Your task to perform on an android device: Go to Yahoo.com Image 0: 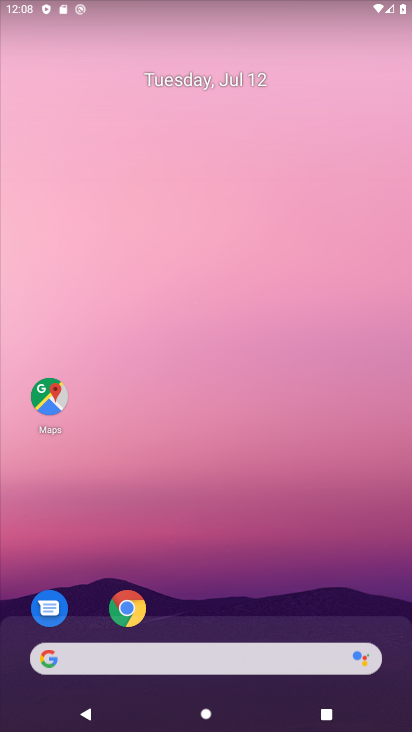
Step 0: drag from (273, 612) to (240, 334)
Your task to perform on an android device: Go to Yahoo.com Image 1: 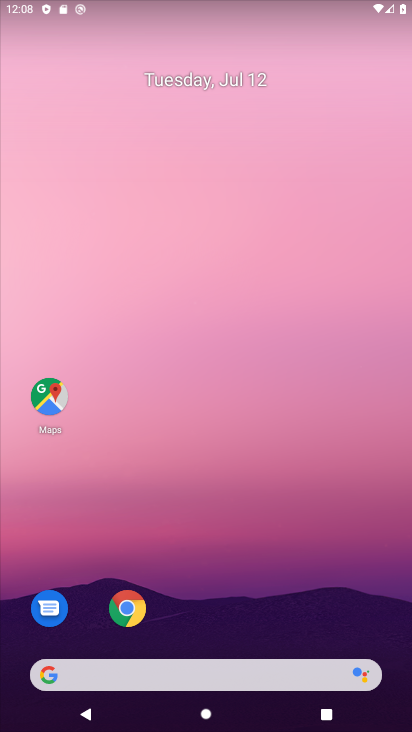
Step 1: drag from (245, 675) to (174, 315)
Your task to perform on an android device: Go to Yahoo.com Image 2: 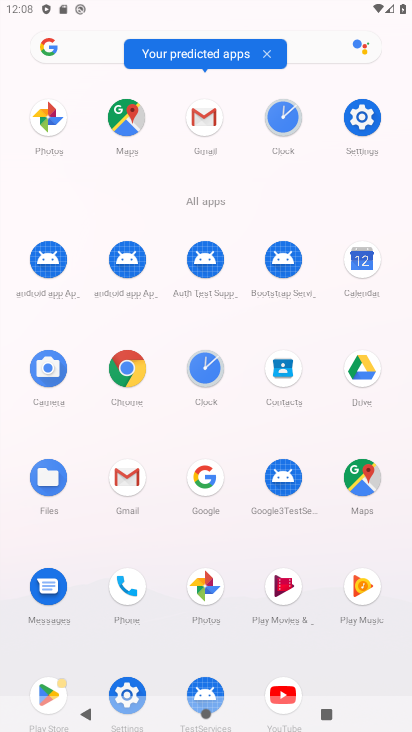
Step 2: click (124, 376)
Your task to perform on an android device: Go to Yahoo.com Image 3: 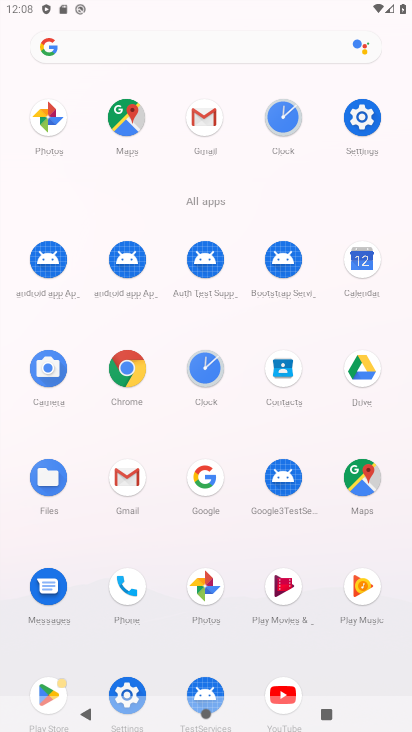
Step 3: click (124, 376)
Your task to perform on an android device: Go to Yahoo.com Image 4: 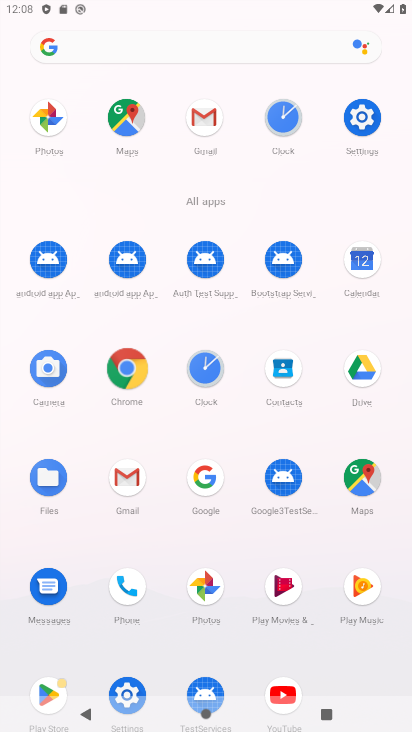
Step 4: click (125, 375)
Your task to perform on an android device: Go to Yahoo.com Image 5: 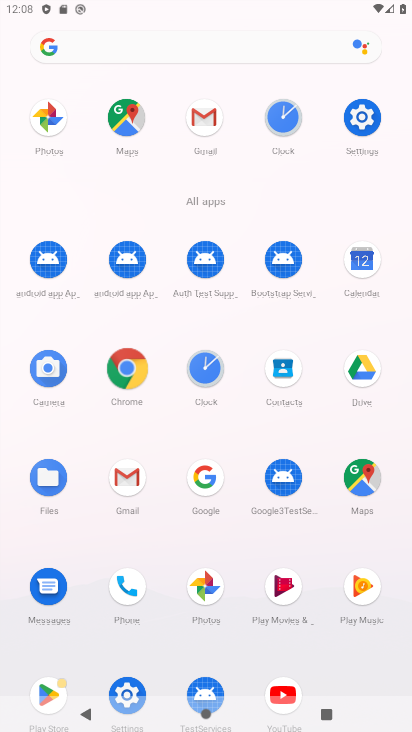
Step 5: click (126, 378)
Your task to perform on an android device: Go to Yahoo.com Image 6: 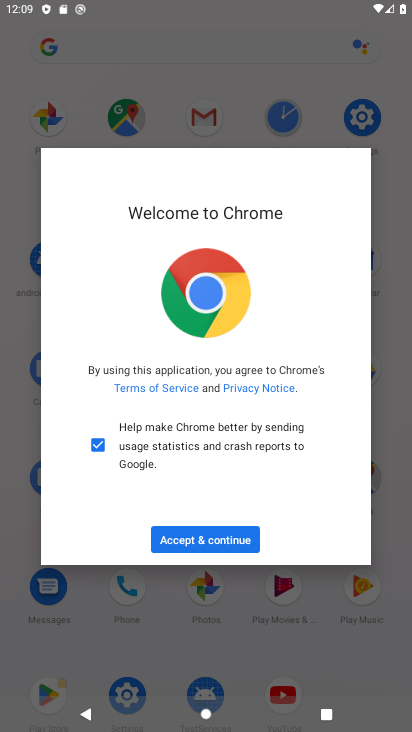
Step 6: click (217, 531)
Your task to perform on an android device: Go to Yahoo.com Image 7: 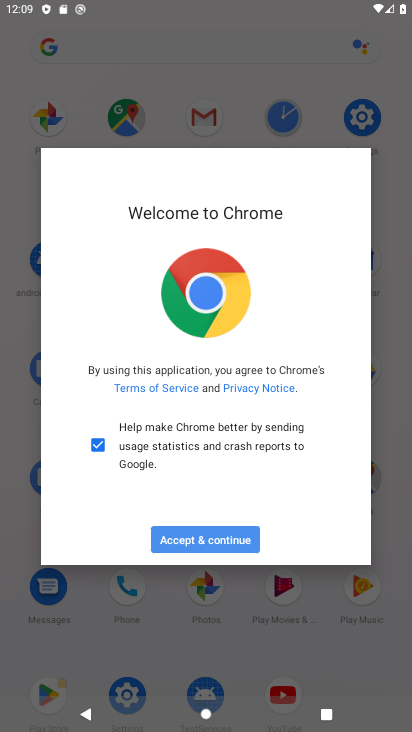
Step 7: click (228, 543)
Your task to perform on an android device: Go to Yahoo.com Image 8: 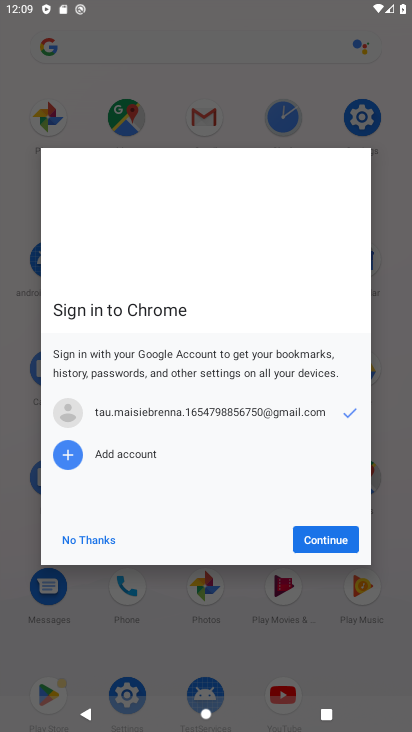
Step 8: click (217, 535)
Your task to perform on an android device: Go to Yahoo.com Image 9: 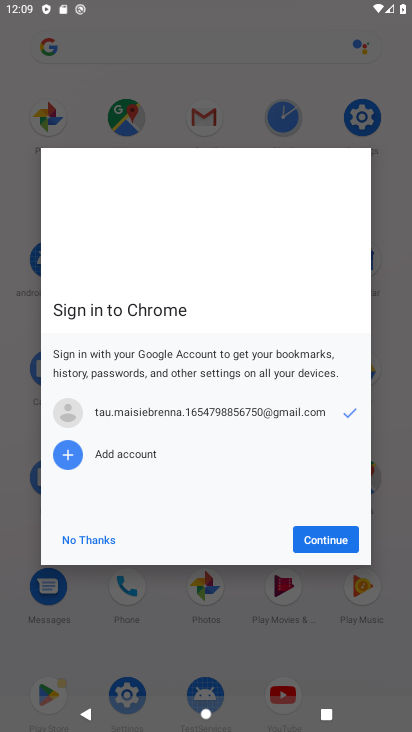
Step 9: click (220, 536)
Your task to perform on an android device: Go to Yahoo.com Image 10: 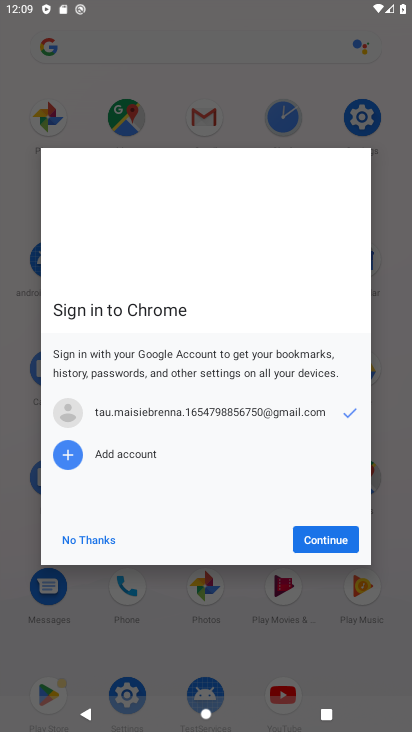
Step 10: click (333, 515)
Your task to perform on an android device: Go to Yahoo.com Image 11: 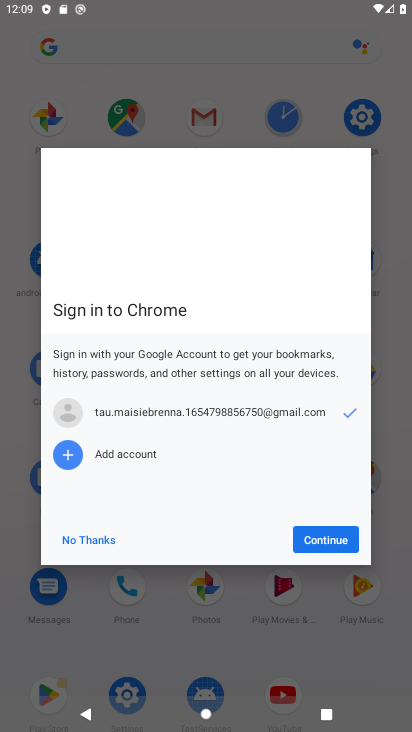
Step 11: click (331, 531)
Your task to perform on an android device: Go to Yahoo.com Image 12: 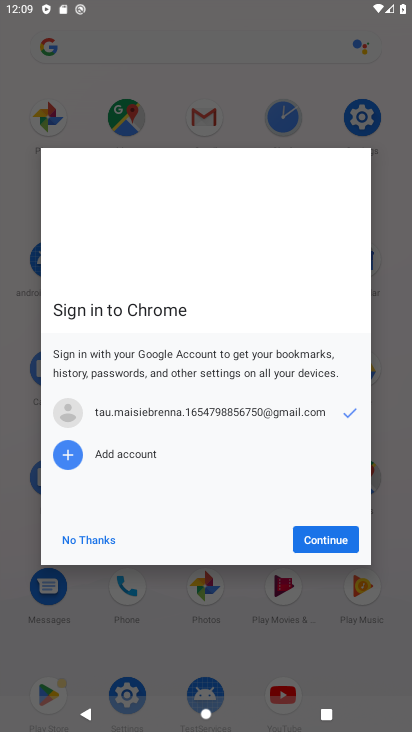
Step 12: click (319, 527)
Your task to perform on an android device: Go to Yahoo.com Image 13: 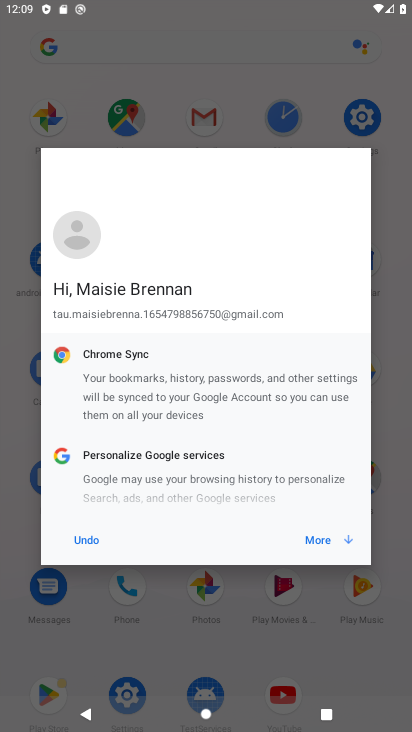
Step 13: click (324, 529)
Your task to perform on an android device: Go to Yahoo.com Image 14: 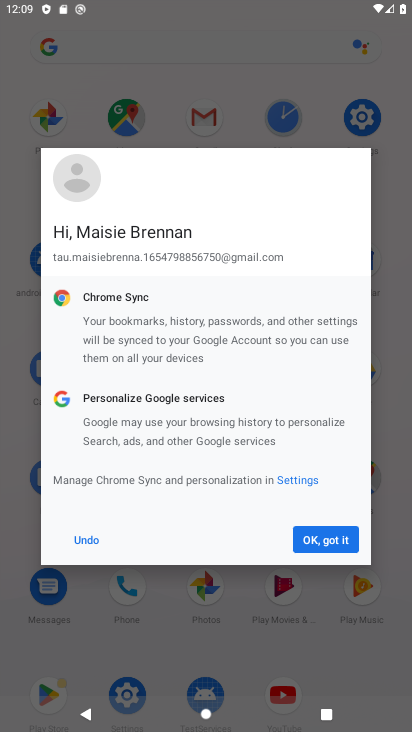
Step 14: click (325, 531)
Your task to perform on an android device: Go to Yahoo.com Image 15: 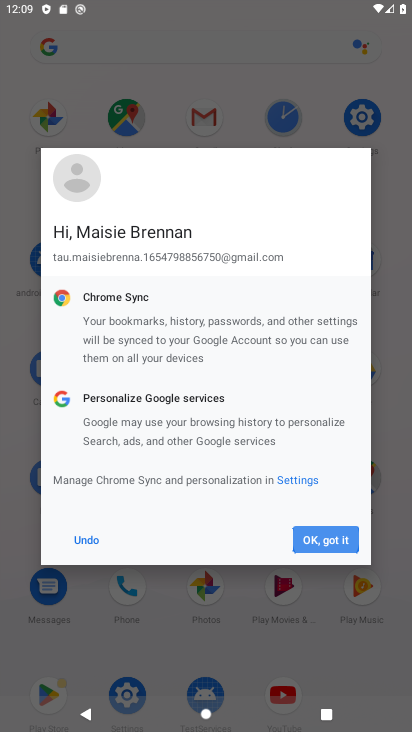
Step 15: click (332, 538)
Your task to perform on an android device: Go to Yahoo.com Image 16: 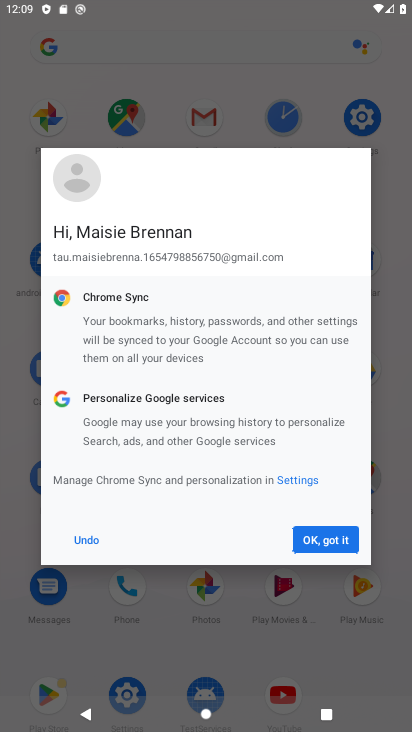
Step 16: click (329, 536)
Your task to perform on an android device: Go to Yahoo.com Image 17: 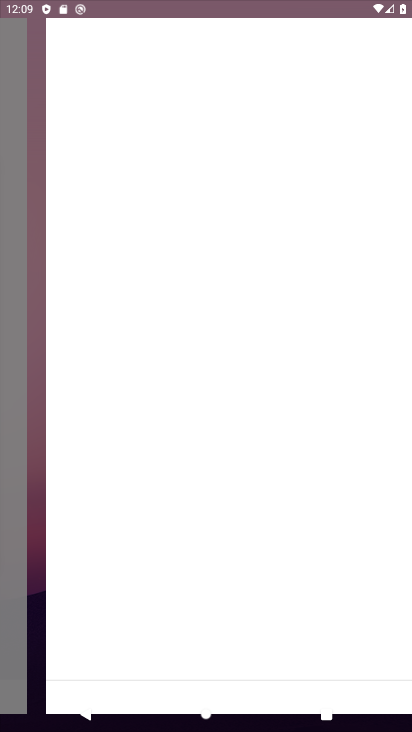
Step 17: click (329, 536)
Your task to perform on an android device: Go to Yahoo.com Image 18: 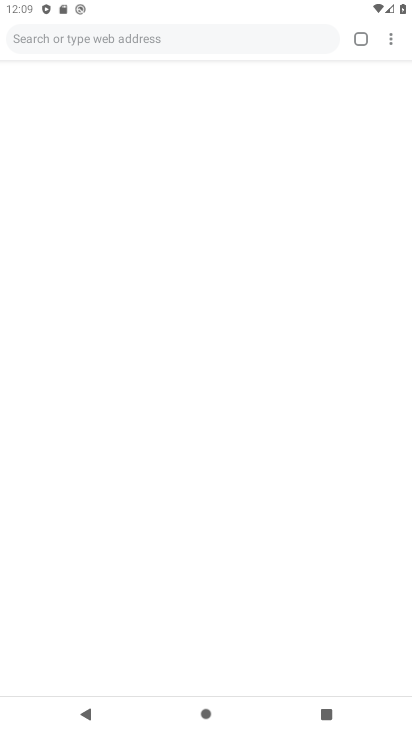
Step 18: click (329, 536)
Your task to perform on an android device: Go to Yahoo.com Image 19: 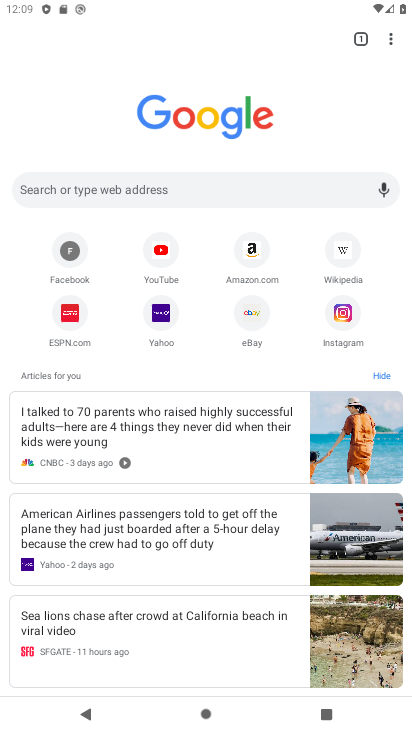
Step 19: click (156, 324)
Your task to perform on an android device: Go to Yahoo.com Image 20: 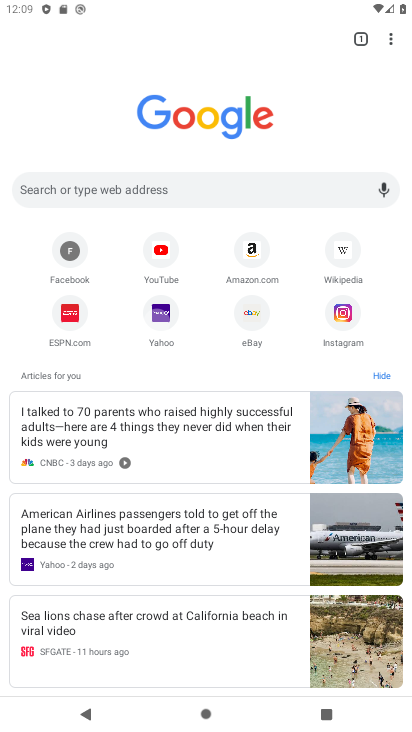
Step 20: click (191, 291)
Your task to perform on an android device: Go to Yahoo.com Image 21: 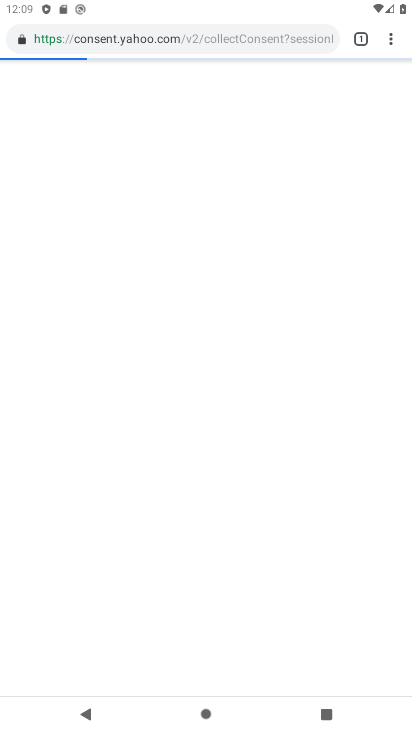
Step 21: click (164, 316)
Your task to perform on an android device: Go to Yahoo.com Image 22: 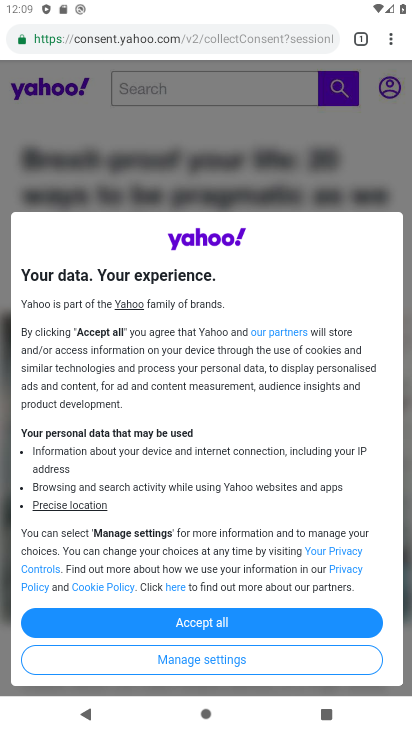
Step 22: task complete